Your task to perform on an android device: turn vacation reply on in the gmail app Image 0: 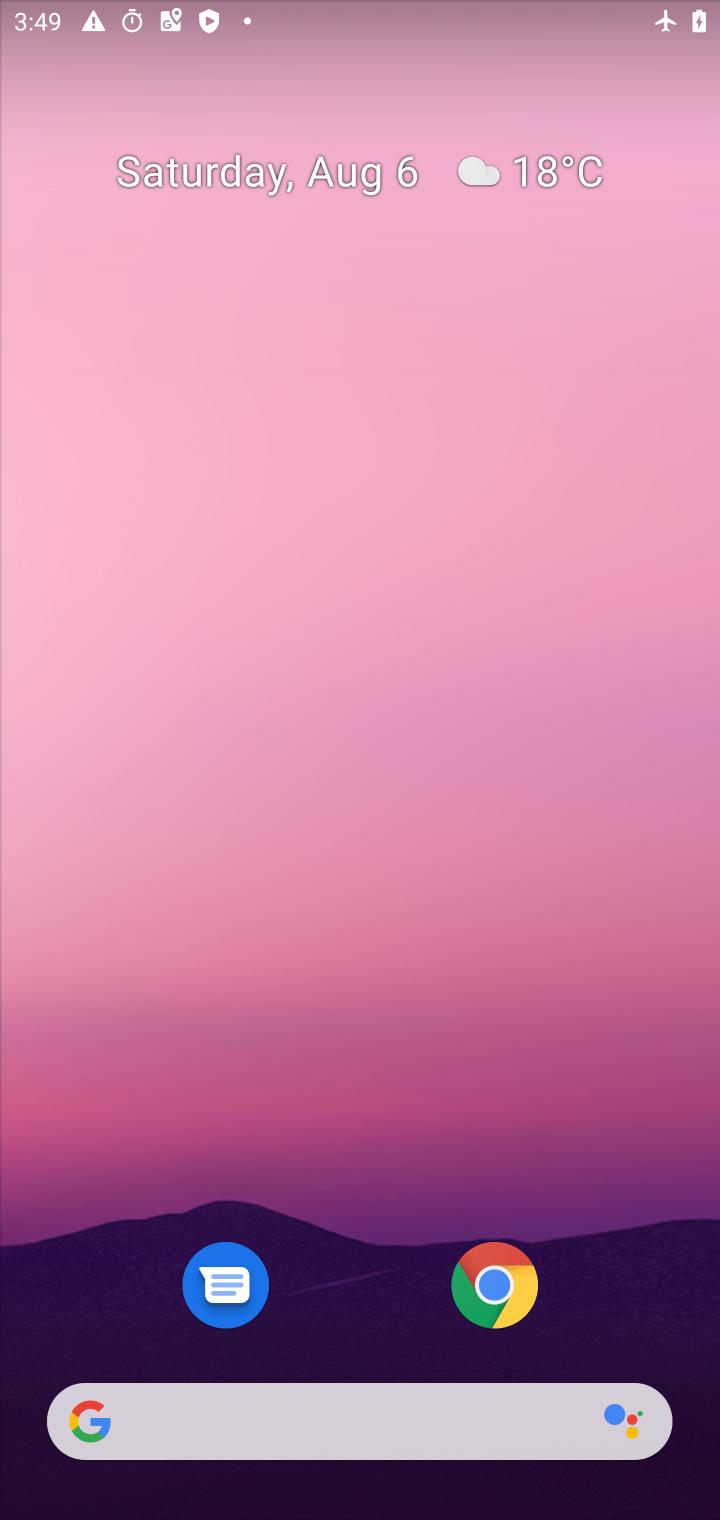
Step 0: drag from (364, 1329) to (506, 6)
Your task to perform on an android device: turn vacation reply on in the gmail app Image 1: 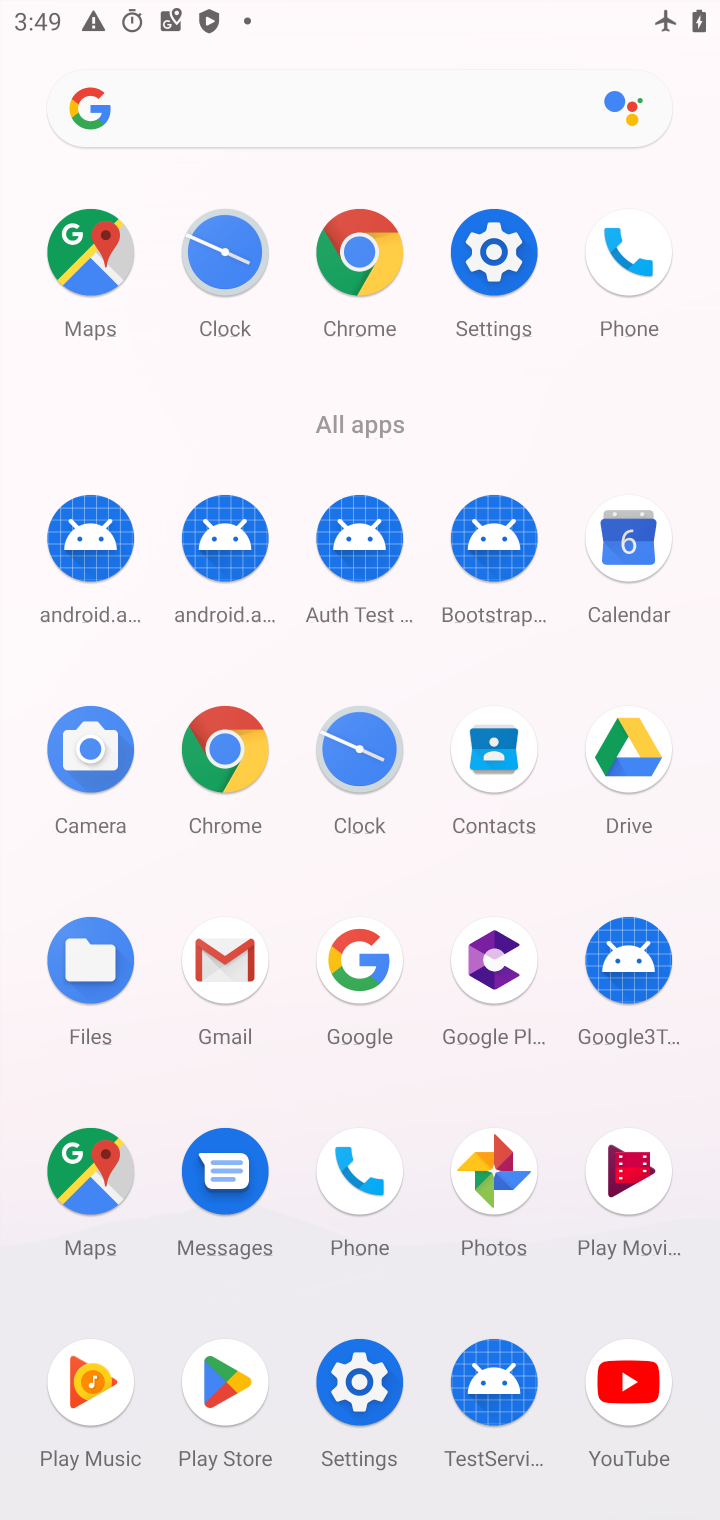
Step 1: click (224, 949)
Your task to perform on an android device: turn vacation reply on in the gmail app Image 2: 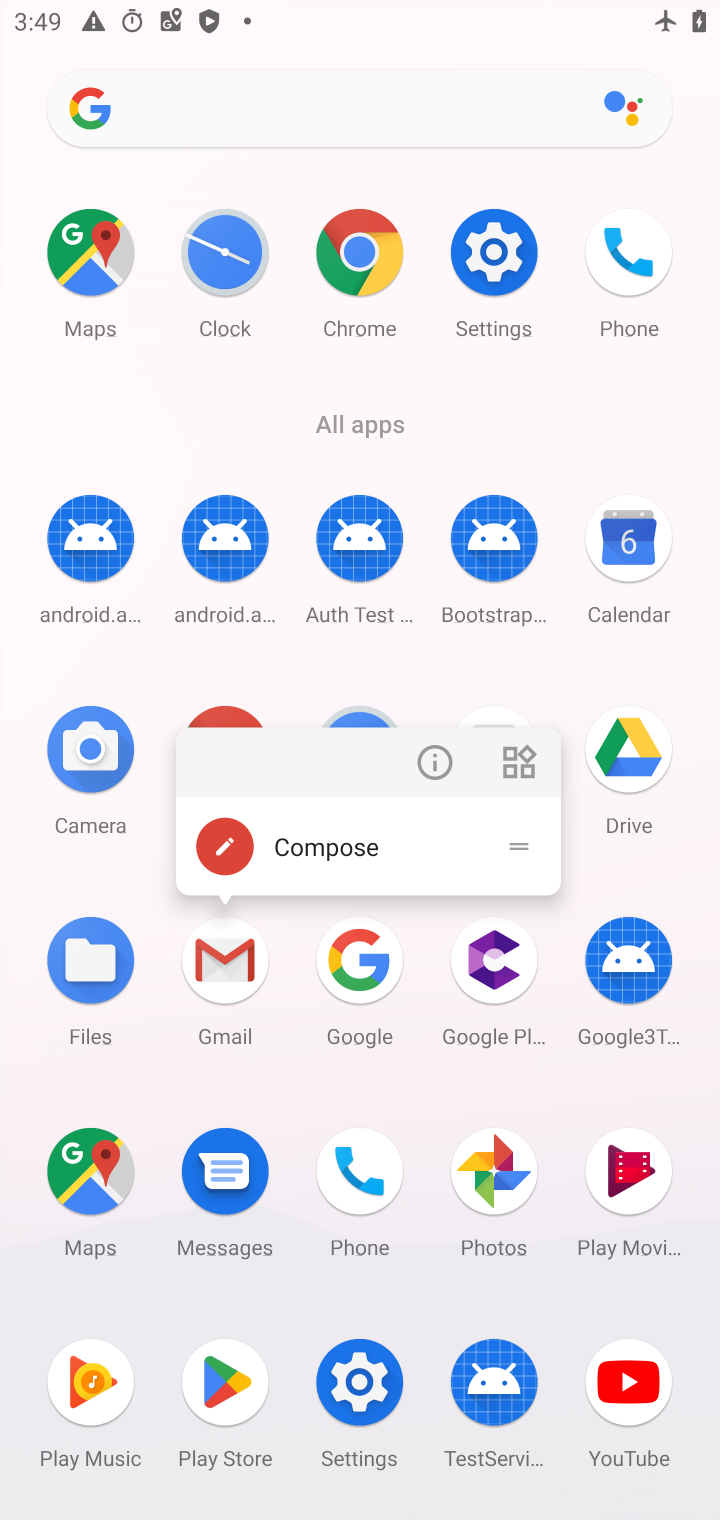
Step 2: click (217, 940)
Your task to perform on an android device: turn vacation reply on in the gmail app Image 3: 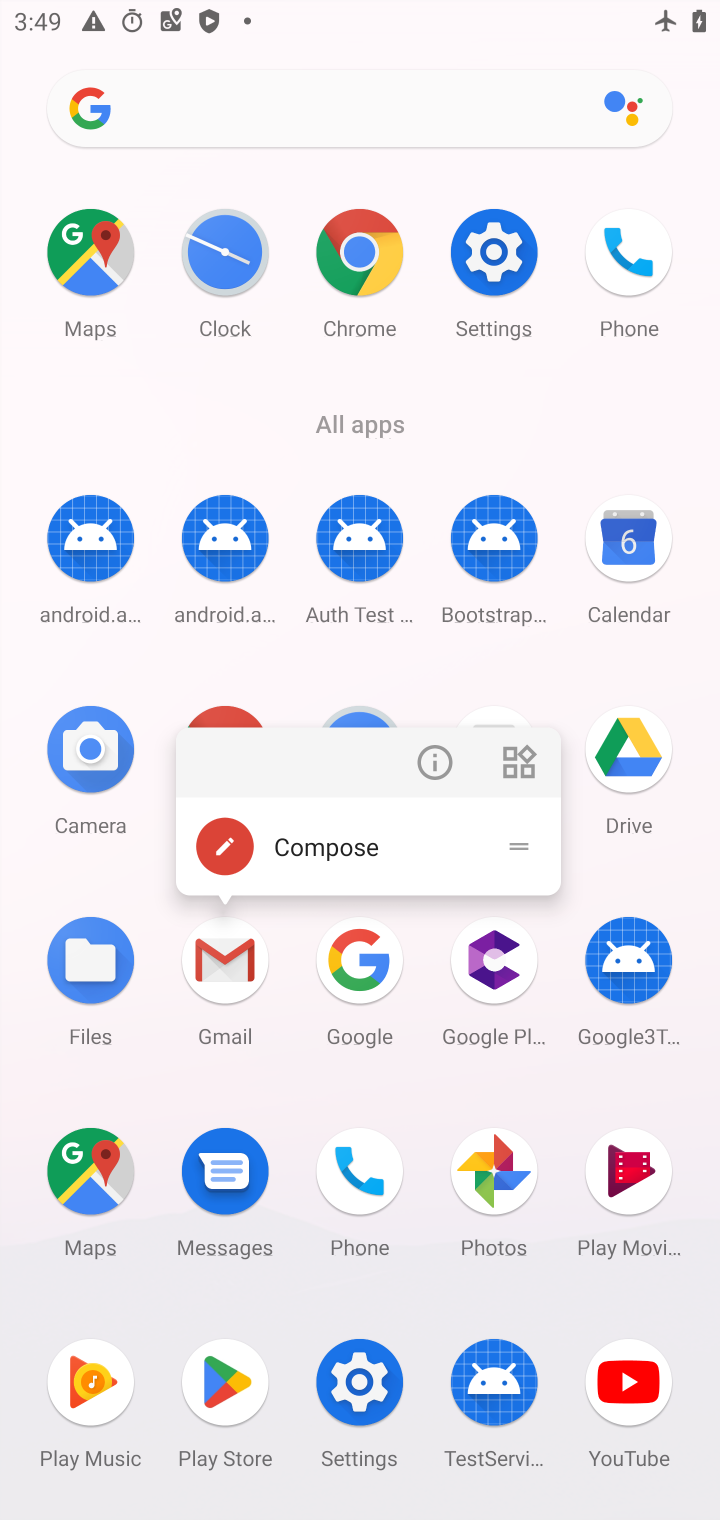
Step 3: click (219, 944)
Your task to perform on an android device: turn vacation reply on in the gmail app Image 4: 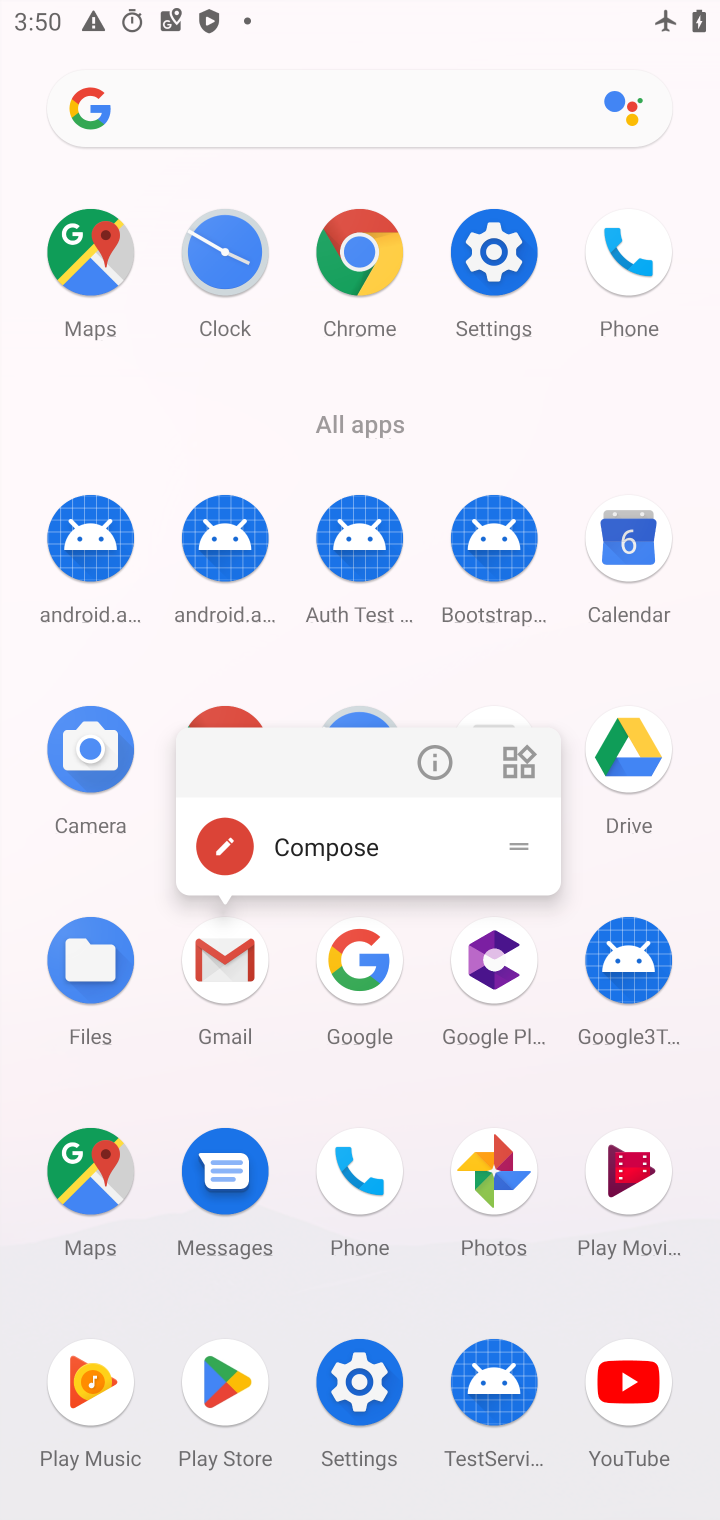
Step 4: click (215, 938)
Your task to perform on an android device: turn vacation reply on in the gmail app Image 5: 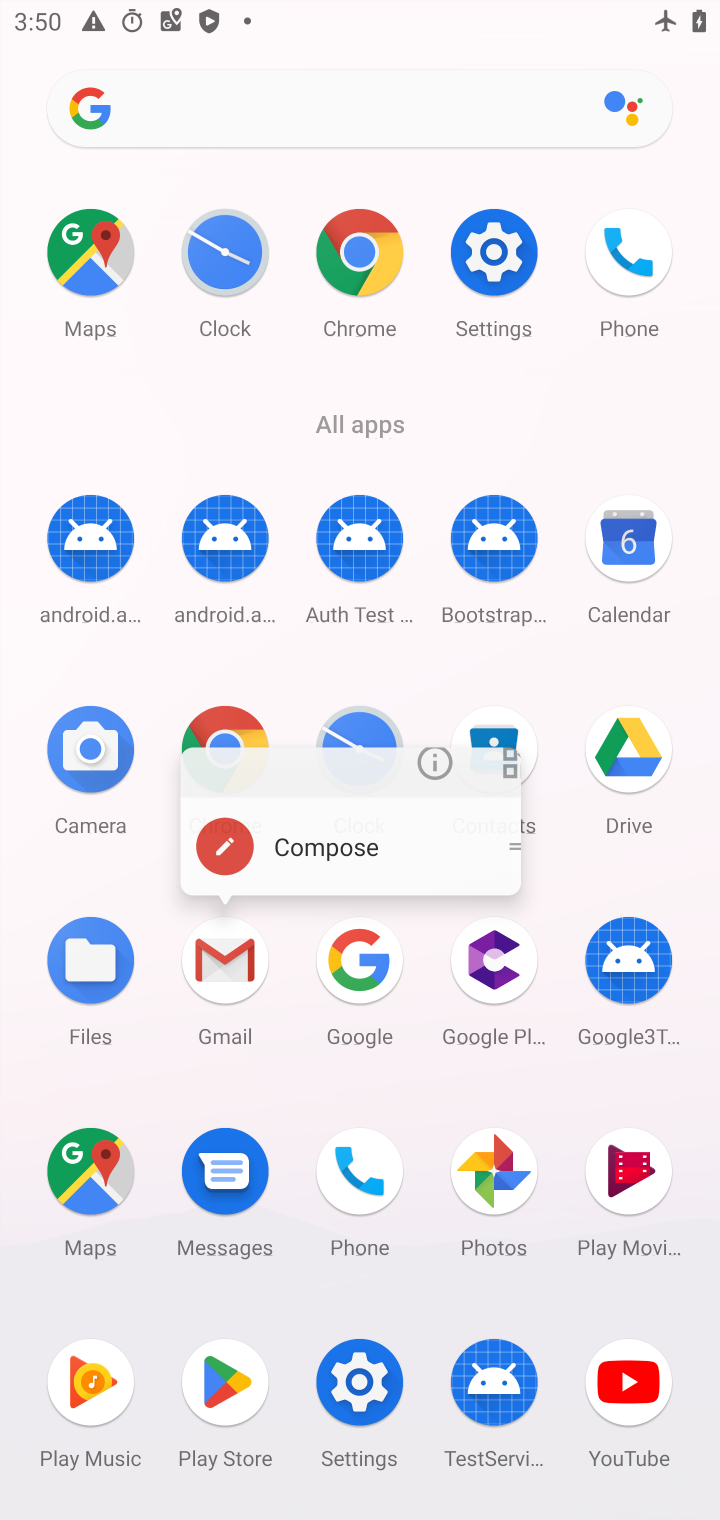
Step 5: click (232, 1274)
Your task to perform on an android device: turn vacation reply on in the gmail app Image 6: 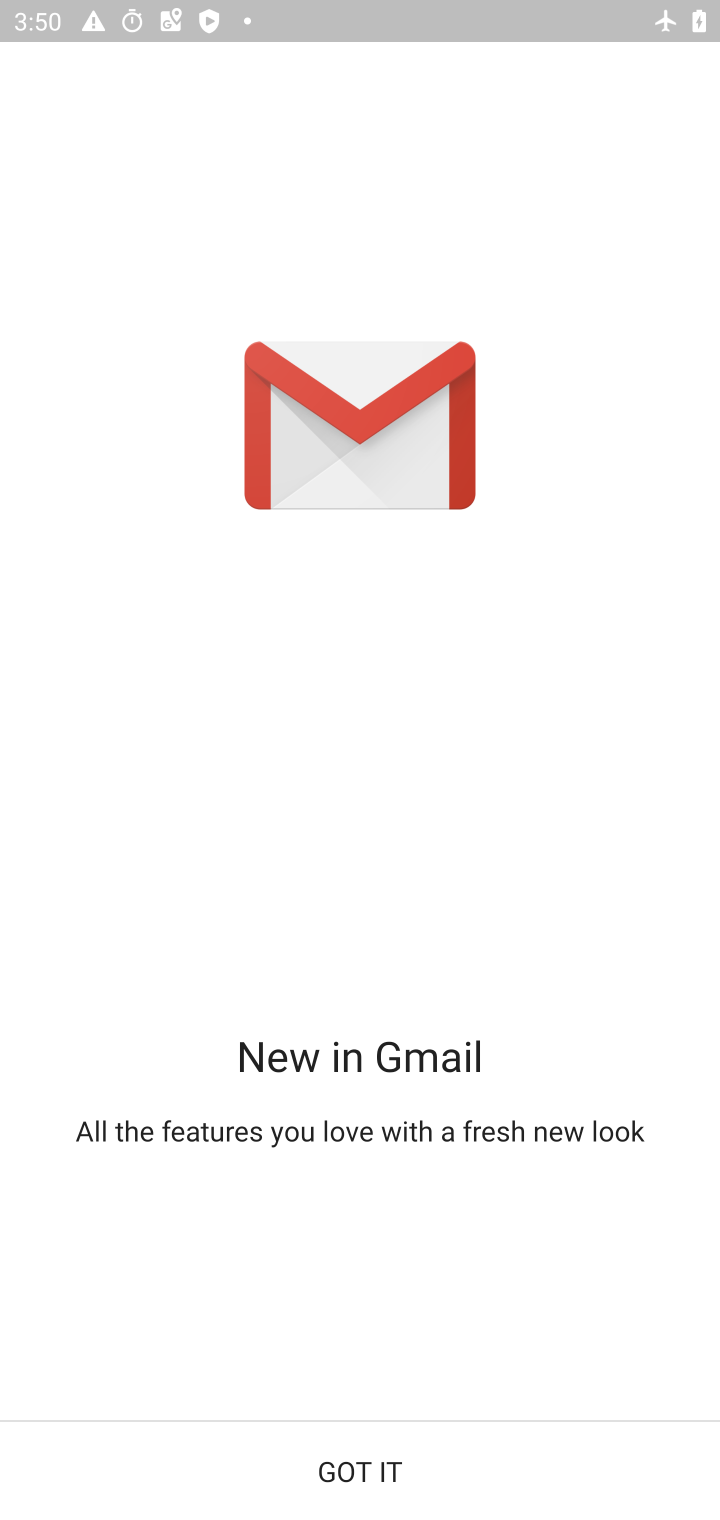
Step 6: click (356, 1462)
Your task to perform on an android device: turn vacation reply on in the gmail app Image 7: 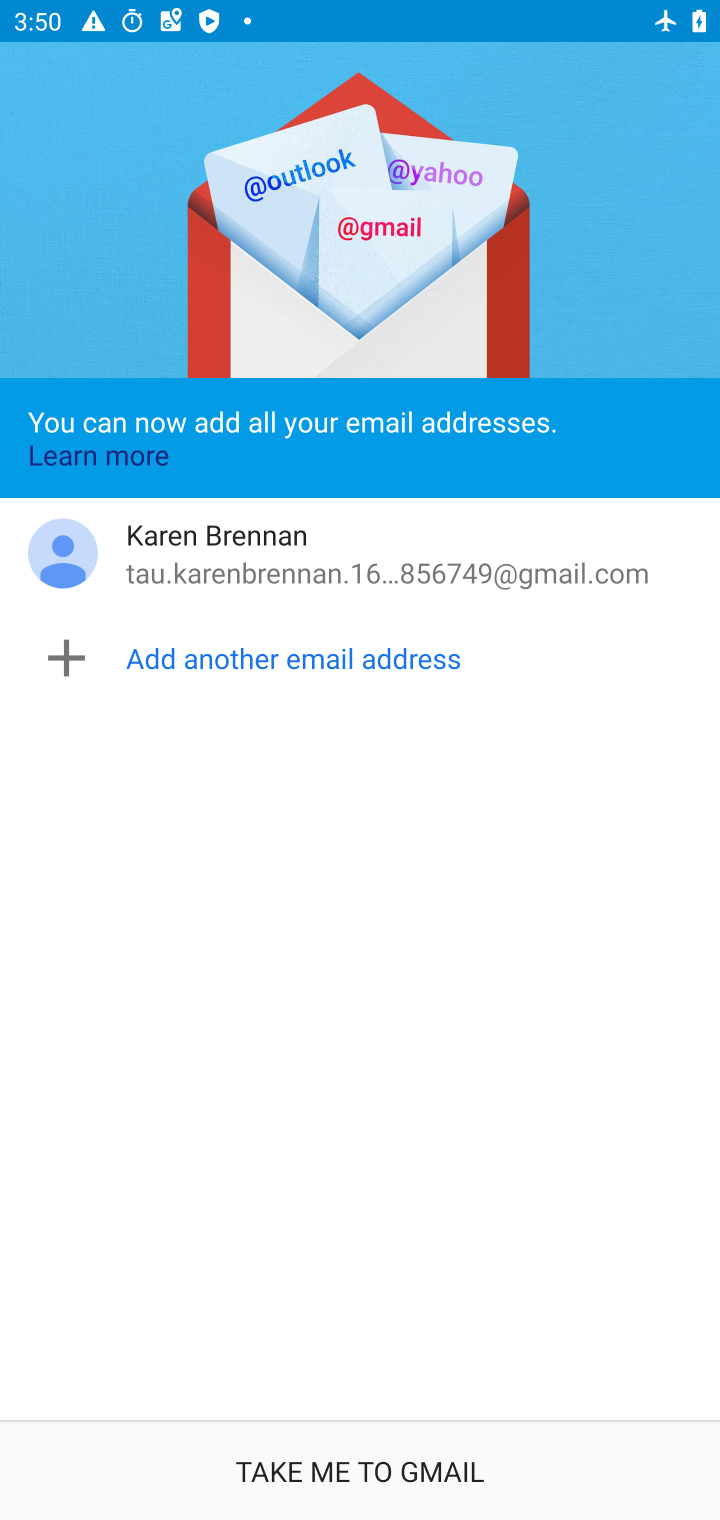
Step 7: click (371, 1479)
Your task to perform on an android device: turn vacation reply on in the gmail app Image 8: 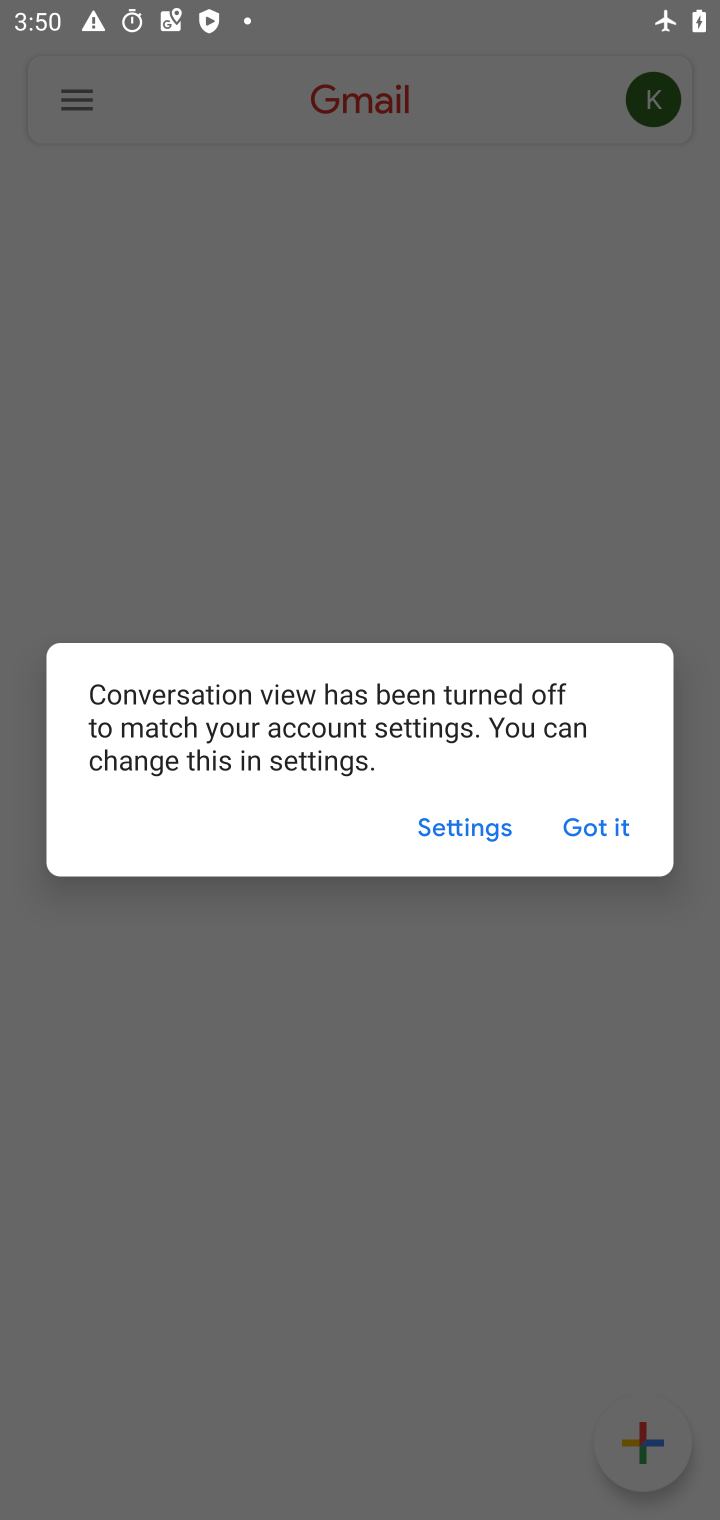
Step 8: click (599, 828)
Your task to perform on an android device: turn vacation reply on in the gmail app Image 9: 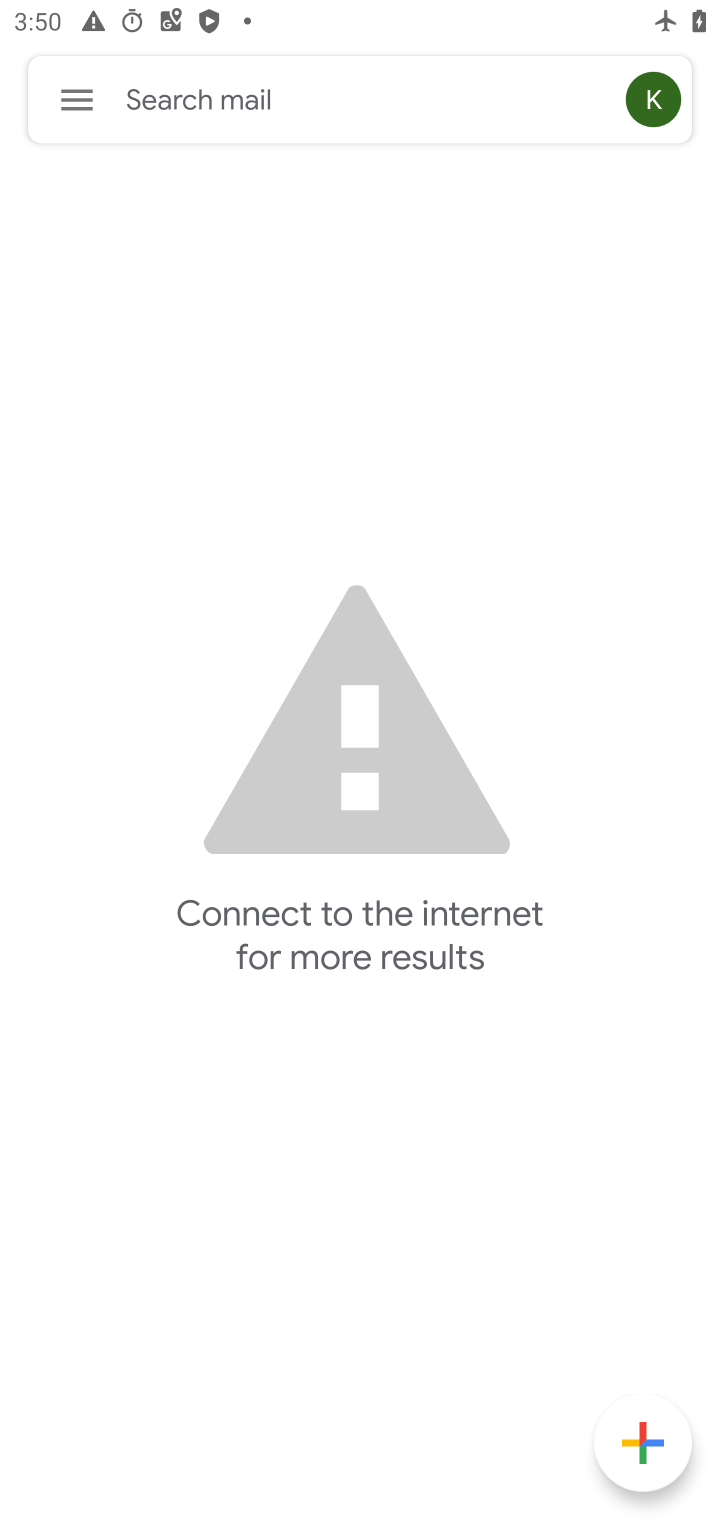
Step 9: click (65, 107)
Your task to perform on an android device: turn vacation reply on in the gmail app Image 10: 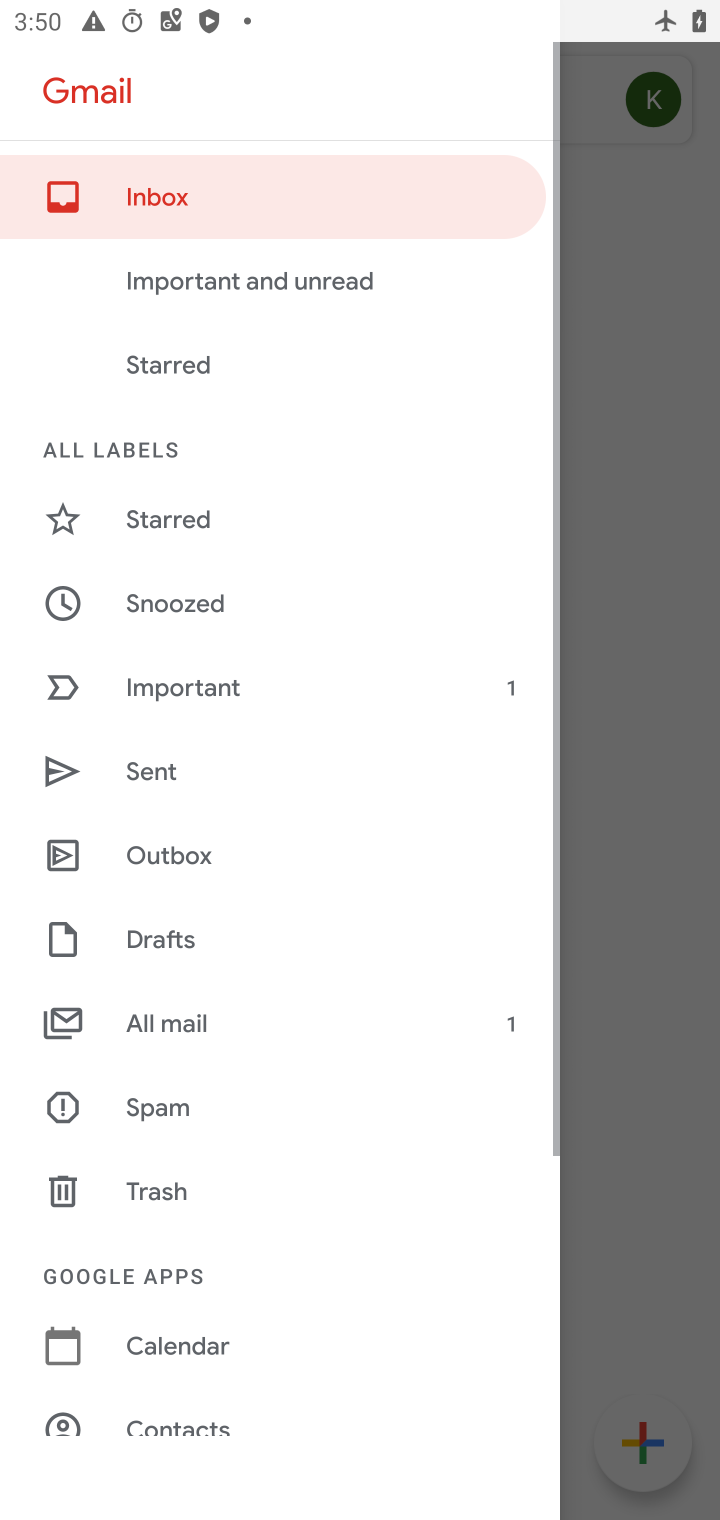
Step 10: task complete